Your task to perform on an android device: change your default location settings in chrome Image 0: 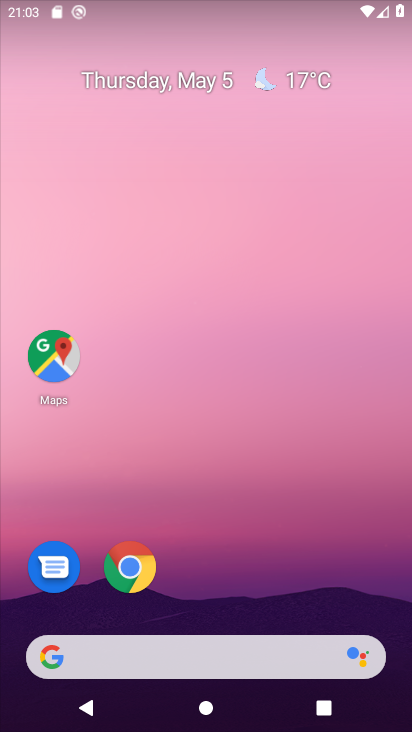
Step 0: drag from (293, 570) to (345, 52)
Your task to perform on an android device: change your default location settings in chrome Image 1: 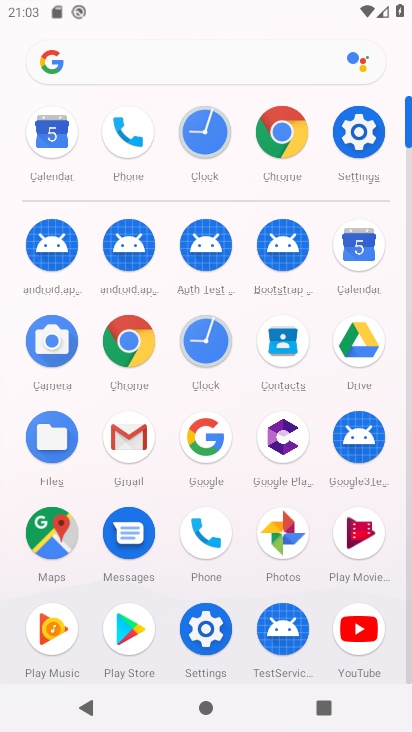
Step 1: click (293, 133)
Your task to perform on an android device: change your default location settings in chrome Image 2: 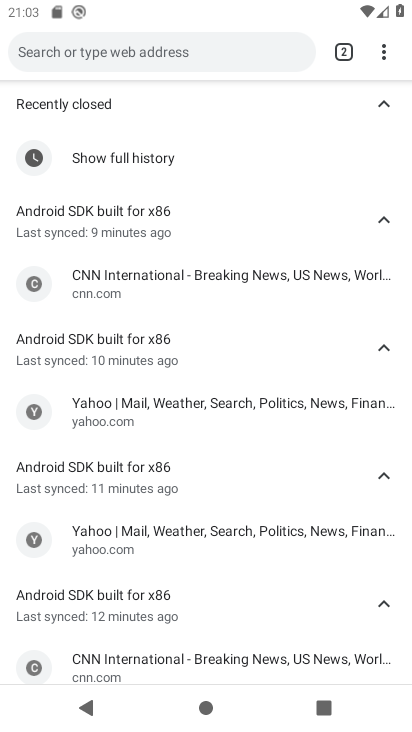
Step 2: drag from (384, 50) to (246, 433)
Your task to perform on an android device: change your default location settings in chrome Image 3: 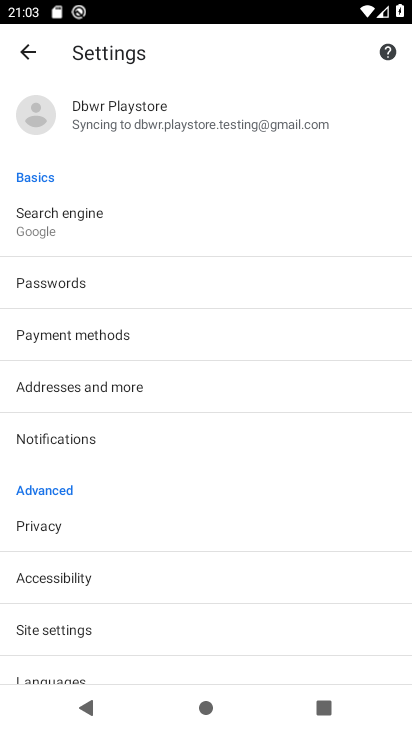
Step 3: click (155, 626)
Your task to perform on an android device: change your default location settings in chrome Image 4: 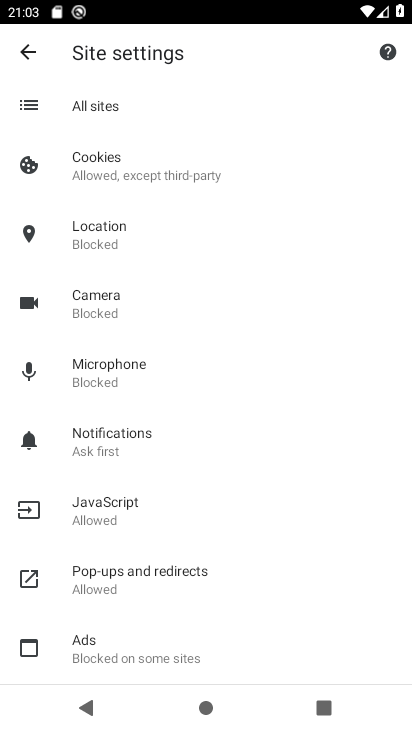
Step 4: click (212, 238)
Your task to perform on an android device: change your default location settings in chrome Image 5: 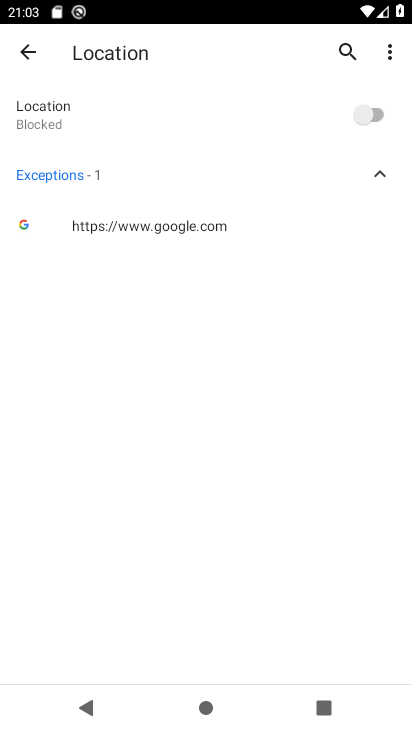
Step 5: click (379, 110)
Your task to perform on an android device: change your default location settings in chrome Image 6: 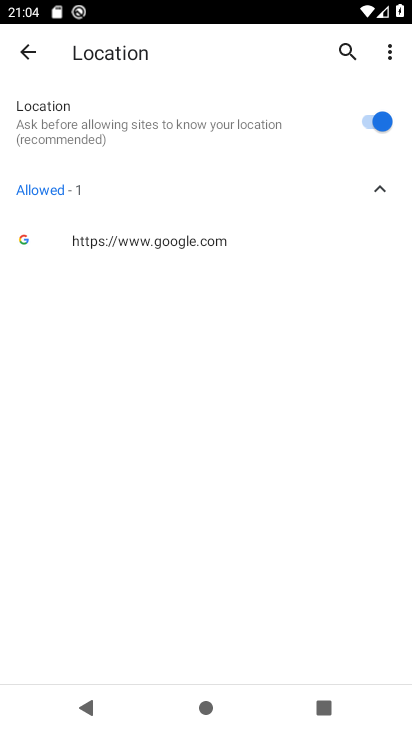
Step 6: task complete